Your task to perform on an android device: Search for "macbook air" on ebay.com, select the first entry, and add it to the cart. Image 0: 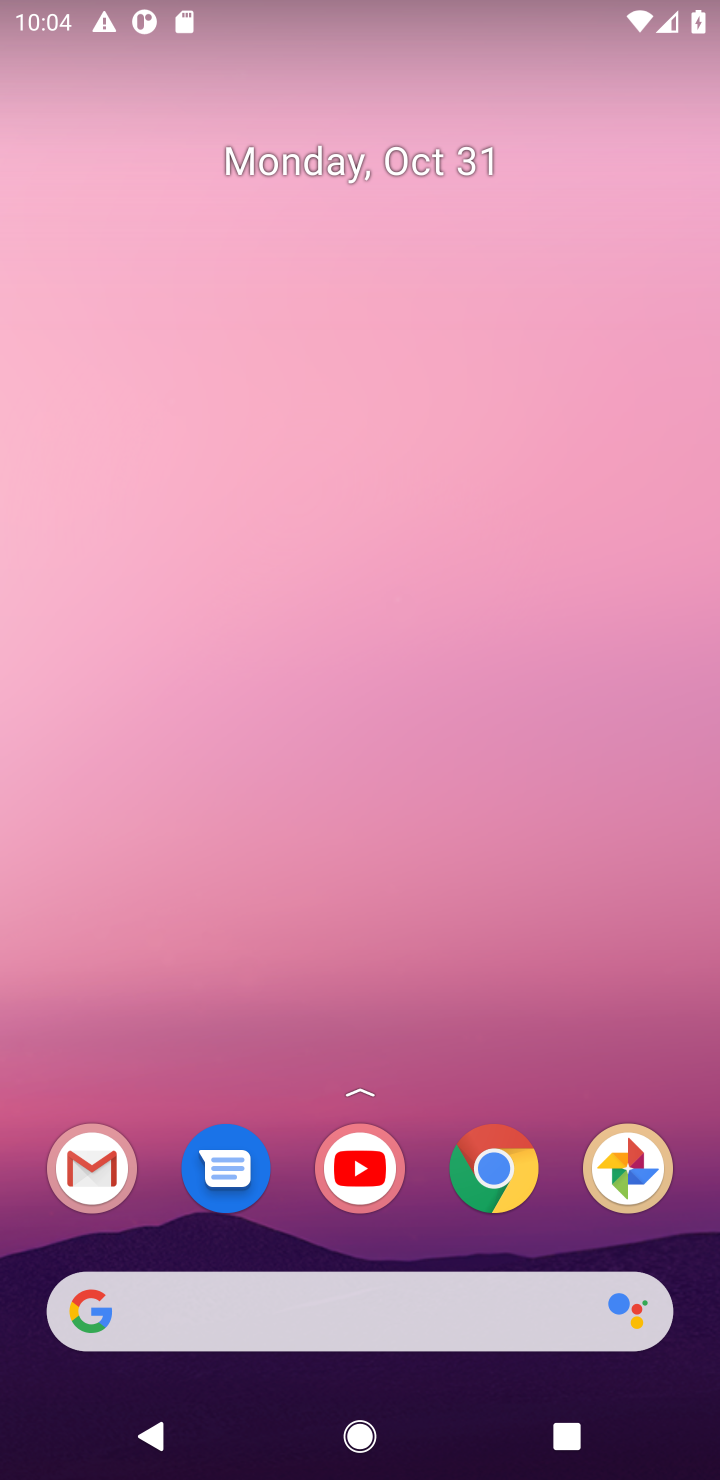
Step 0: click (517, 1165)
Your task to perform on an android device: Search for "macbook air" on ebay.com, select the first entry, and add it to the cart. Image 1: 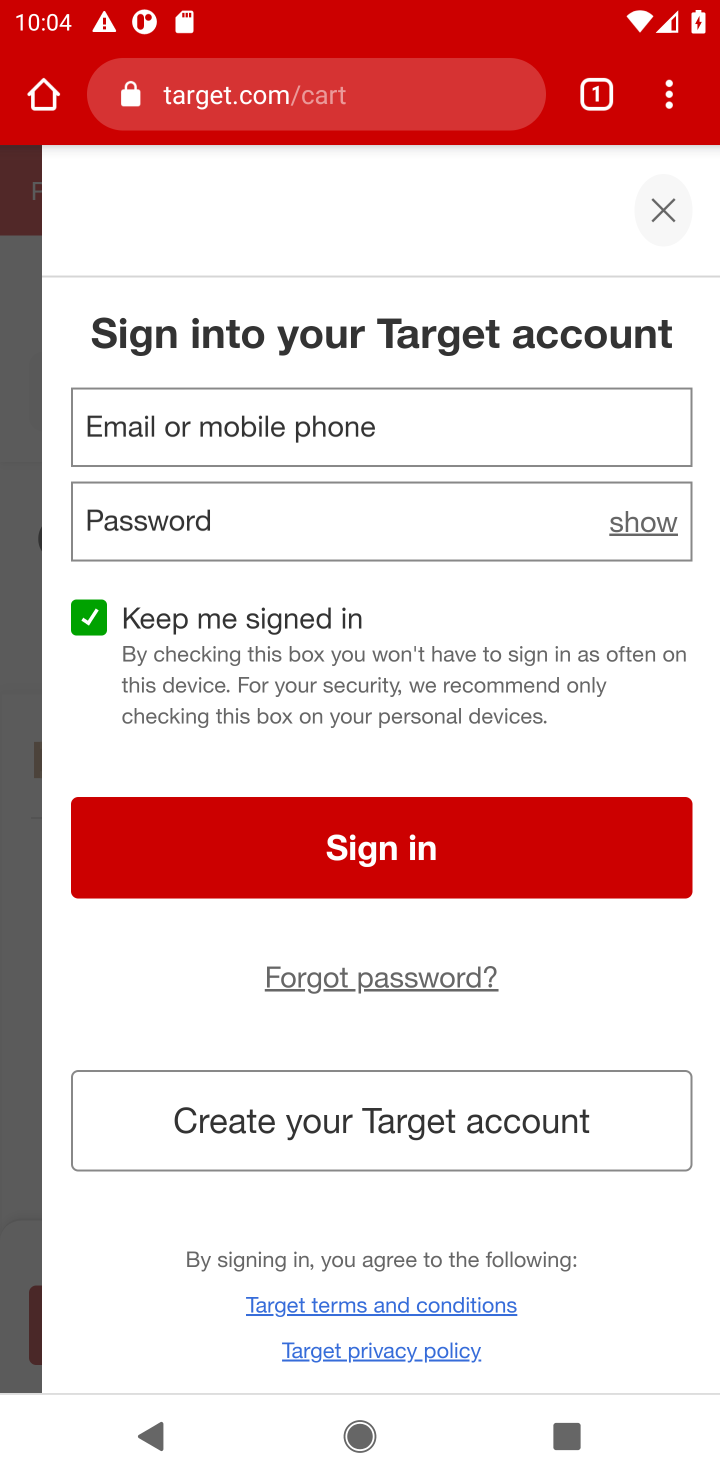
Step 1: click (257, 128)
Your task to perform on an android device: Search for "macbook air" on ebay.com, select the first entry, and add it to the cart. Image 2: 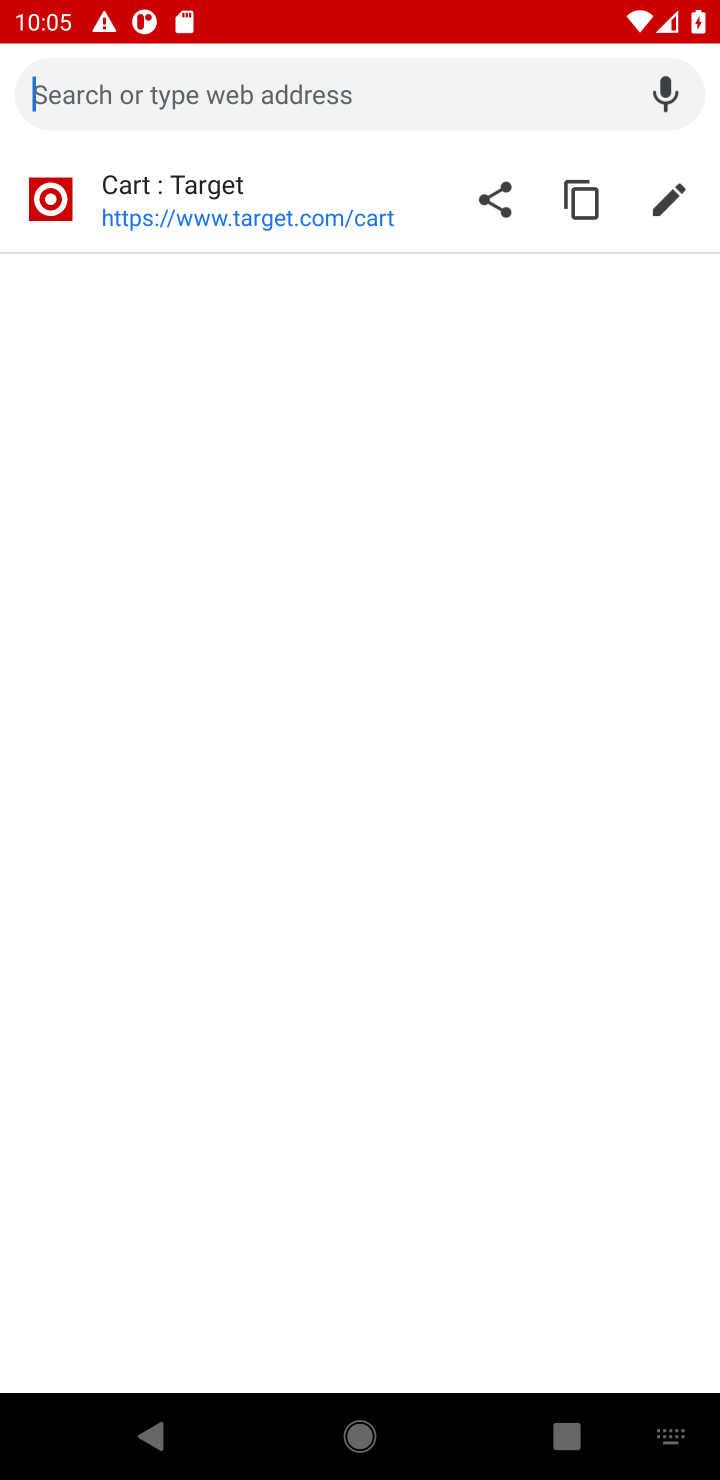
Step 2: type "ebay.com"
Your task to perform on an android device: Search for "macbook air" on ebay.com, select the first entry, and add it to the cart. Image 3: 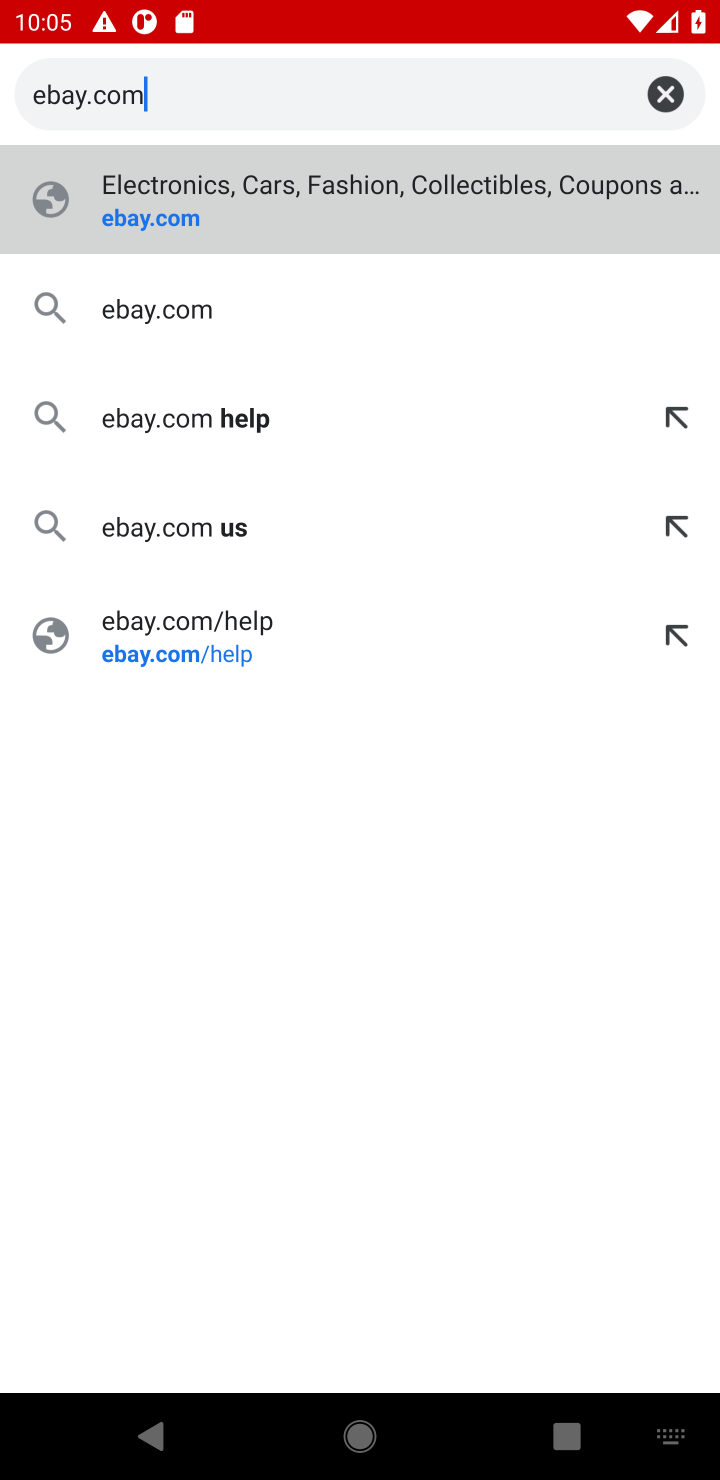
Step 3: press enter
Your task to perform on an android device: Search for "macbook air" on ebay.com, select the first entry, and add it to the cart. Image 4: 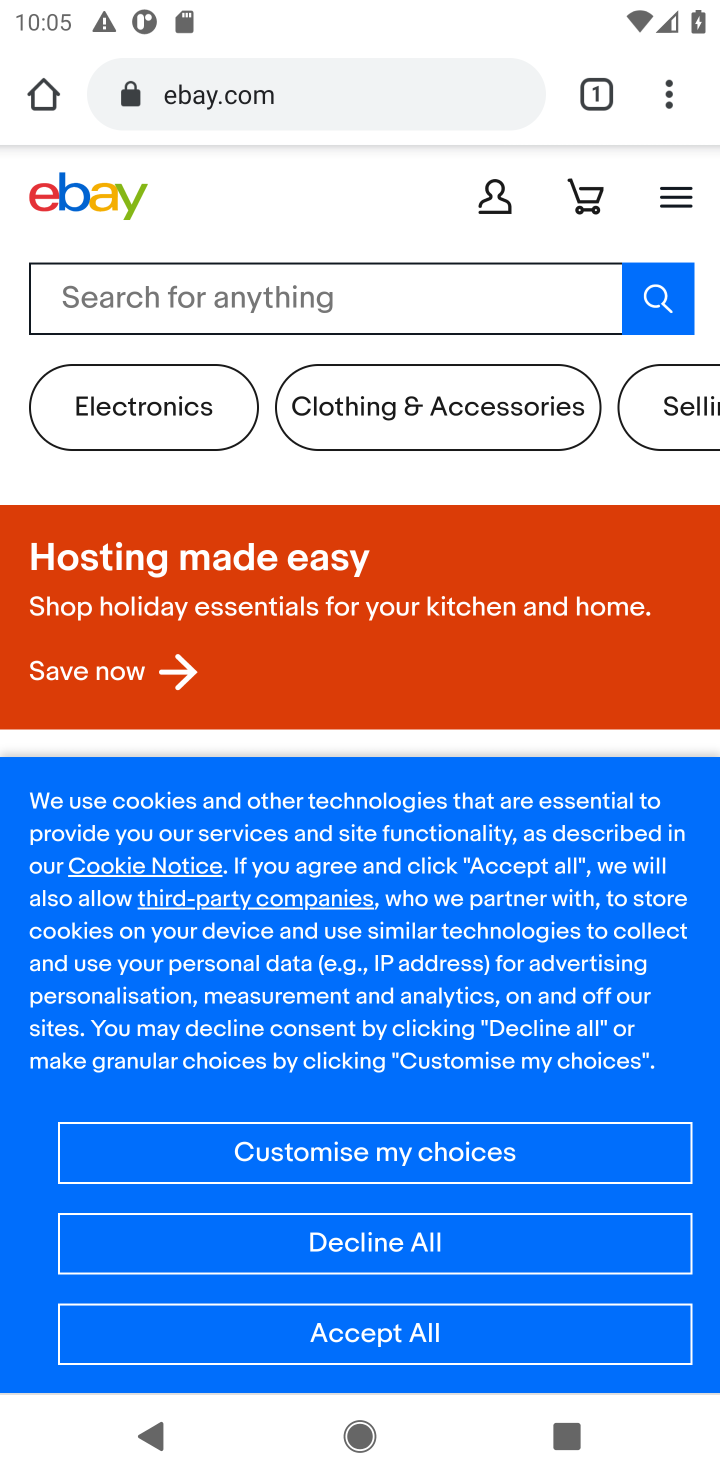
Step 4: click (216, 319)
Your task to perform on an android device: Search for "macbook air" on ebay.com, select the first entry, and add it to the cart. Image 5: 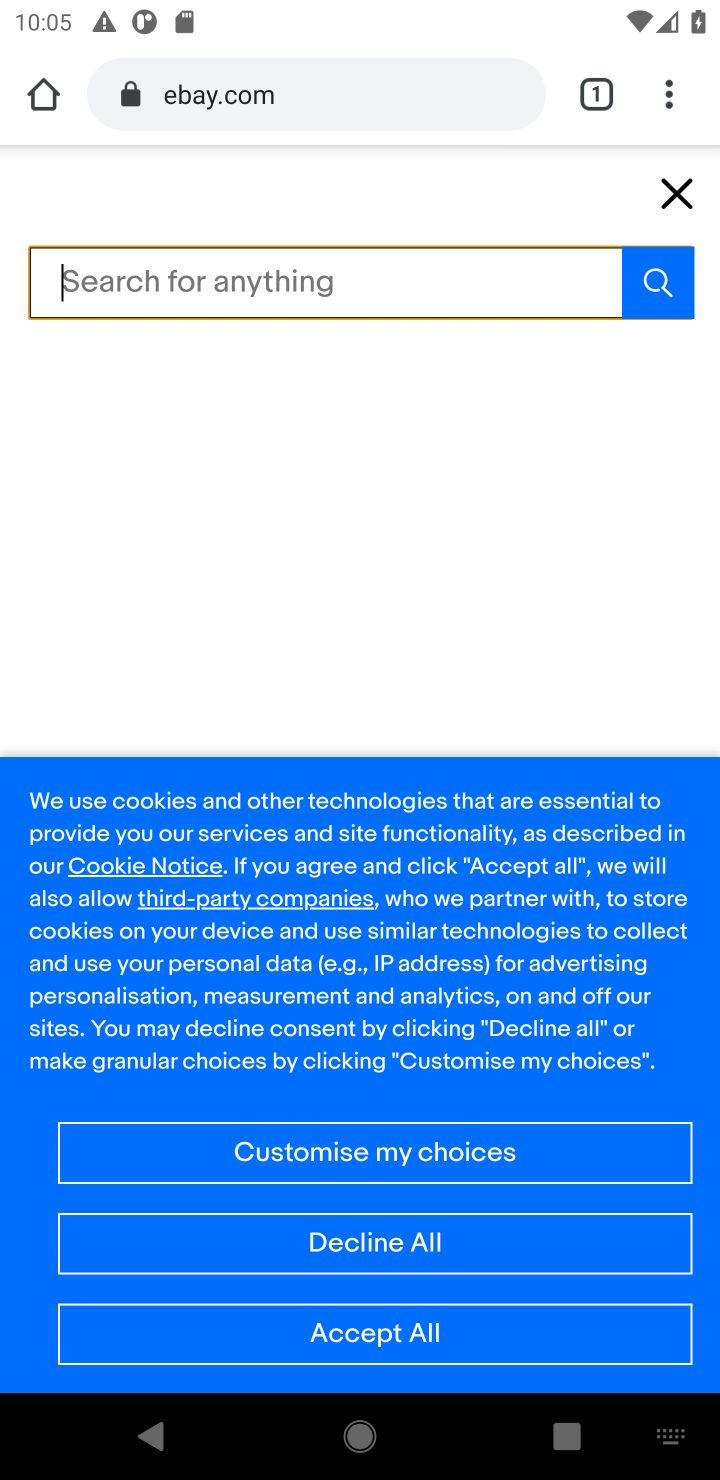
Step 5: type "macbook air"
Your task to perform on an android device: Search for "macbook air" on ebay.com, select the first entry, and add it to the cart. Image 6: 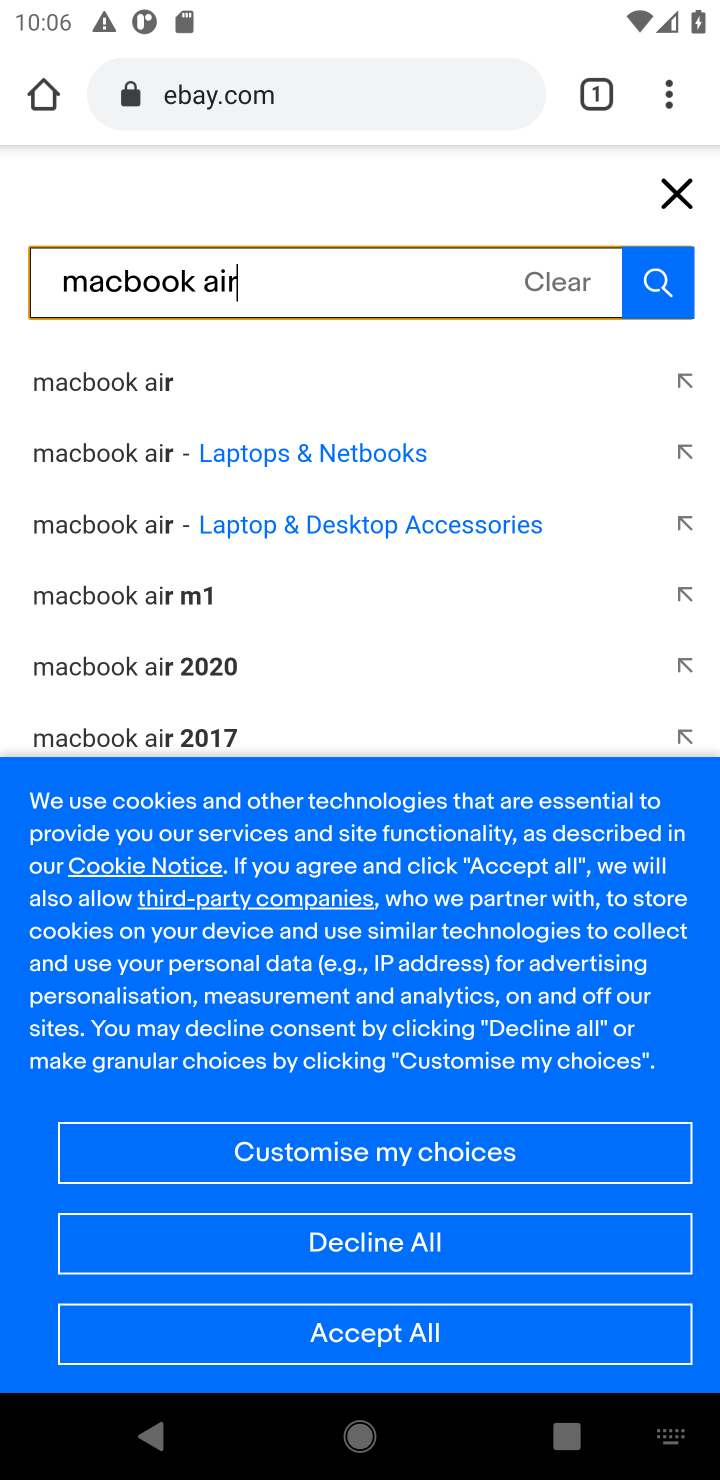
Step 6: click (660, 287)
Your task to perform on an android device: Search for "macbook air" on ebay.com, select the first entry, and add it to the cart. Image 7: 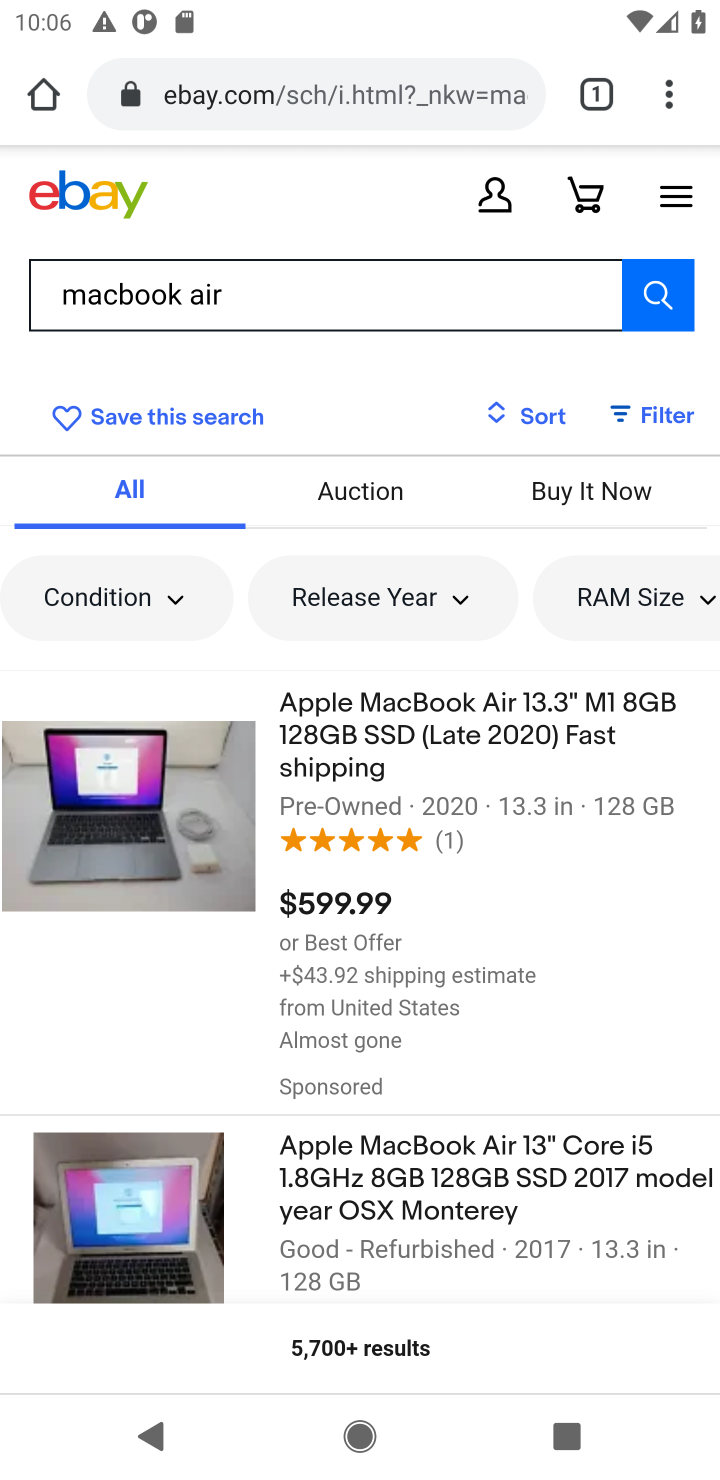
Step 7: click (508, 733)
Your task to perform on an android device: Search for "macbook air" on ebay.com, select the first entry, and add it to the cart. Image 8: 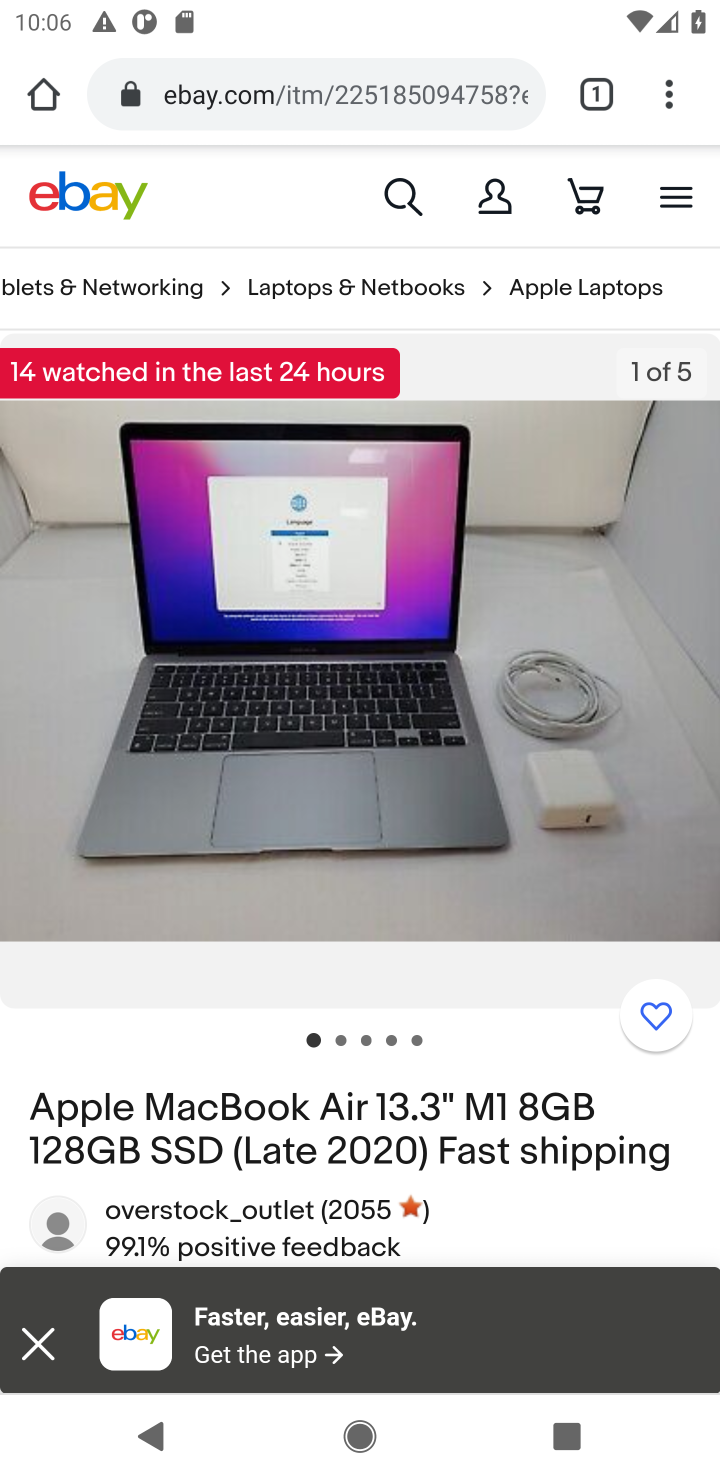
Step 8: drag from (486, 1211) to (462, 833)
Your task to perform on an android device: Search for "macbook air" on ebay.com, select the first entry, and add it to the cart. Image 9: 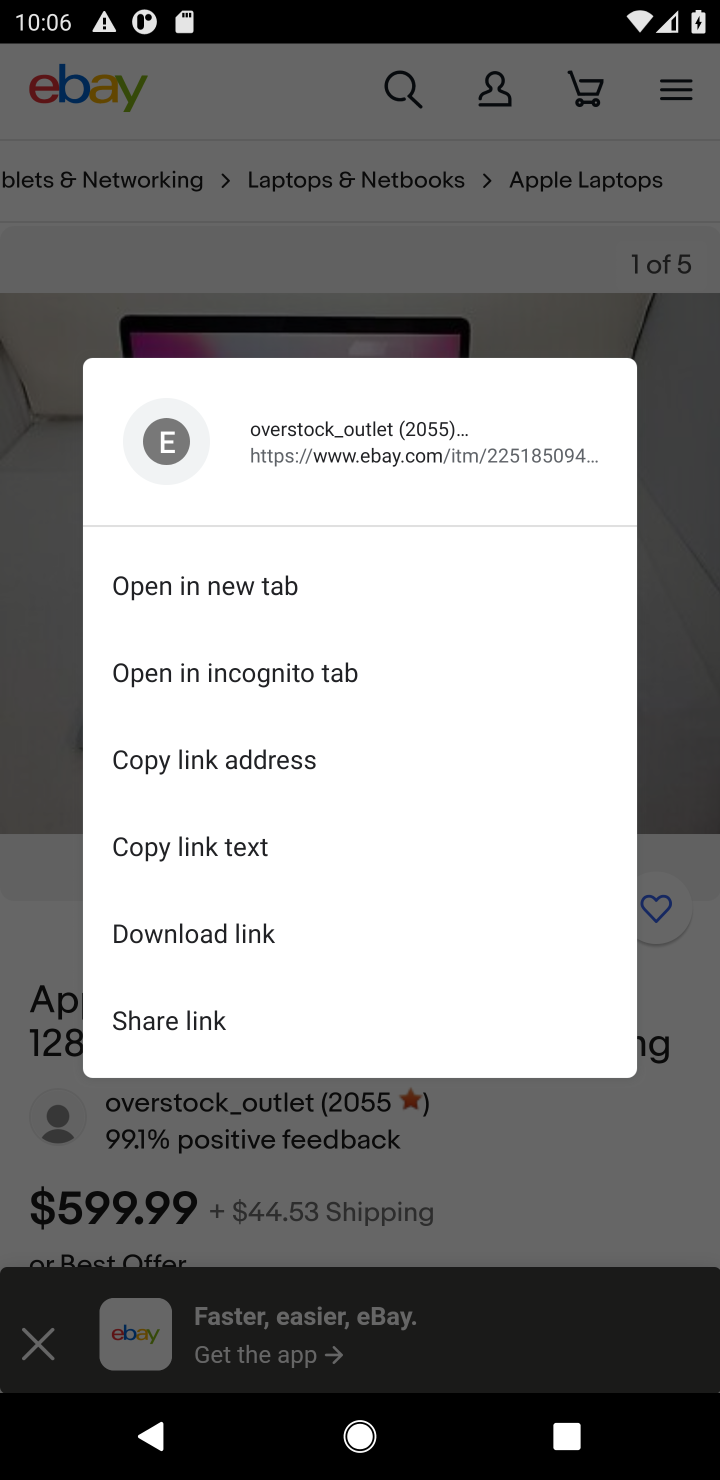
Step 9: click (596, 1140)
Your task to perform on an android device: Search for "macbook air" on ebay.com, select the first entry, and add it to the cart. Image 10: 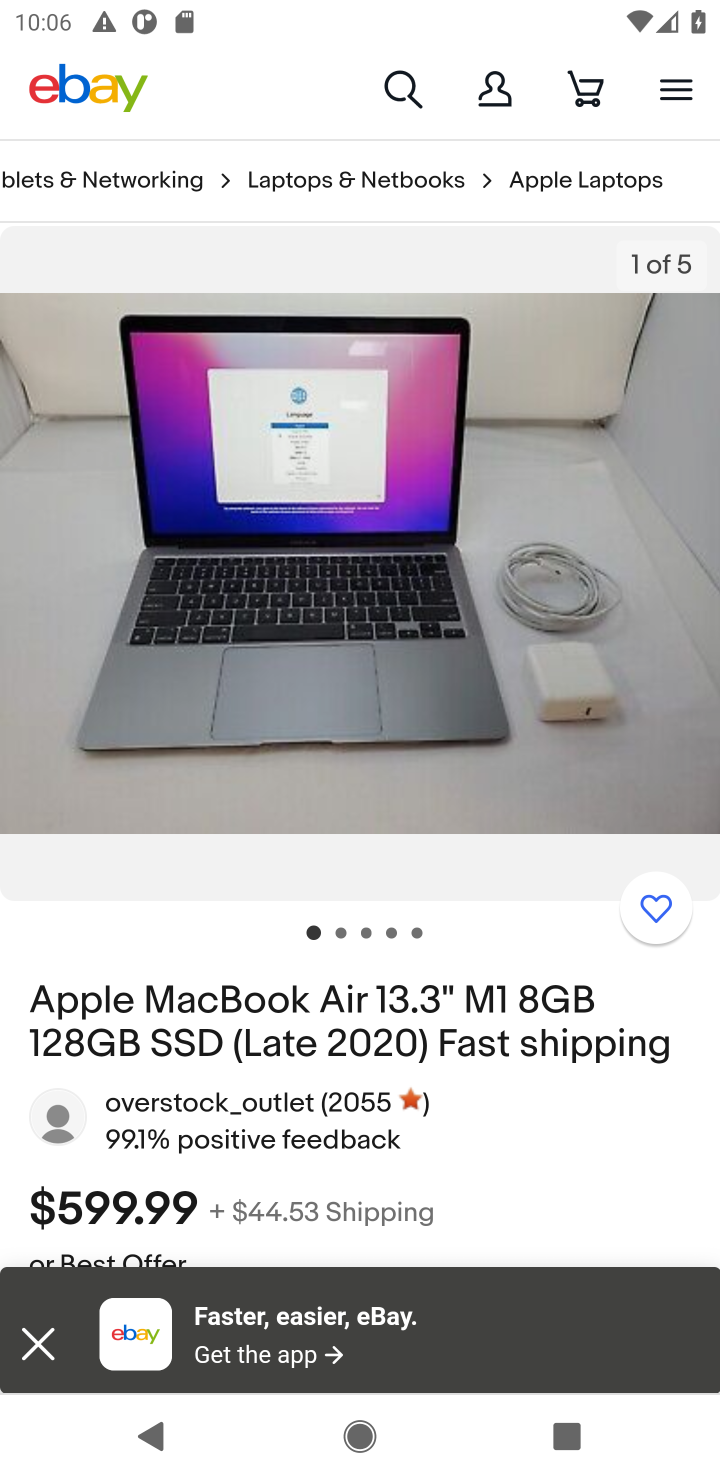
Step 10: drag from (556, 1202) to (555, 818)
Your task to perform on an android device: Search for "macbook air" on ebay.com, select the first entry, and add it to the cart. Image 11: 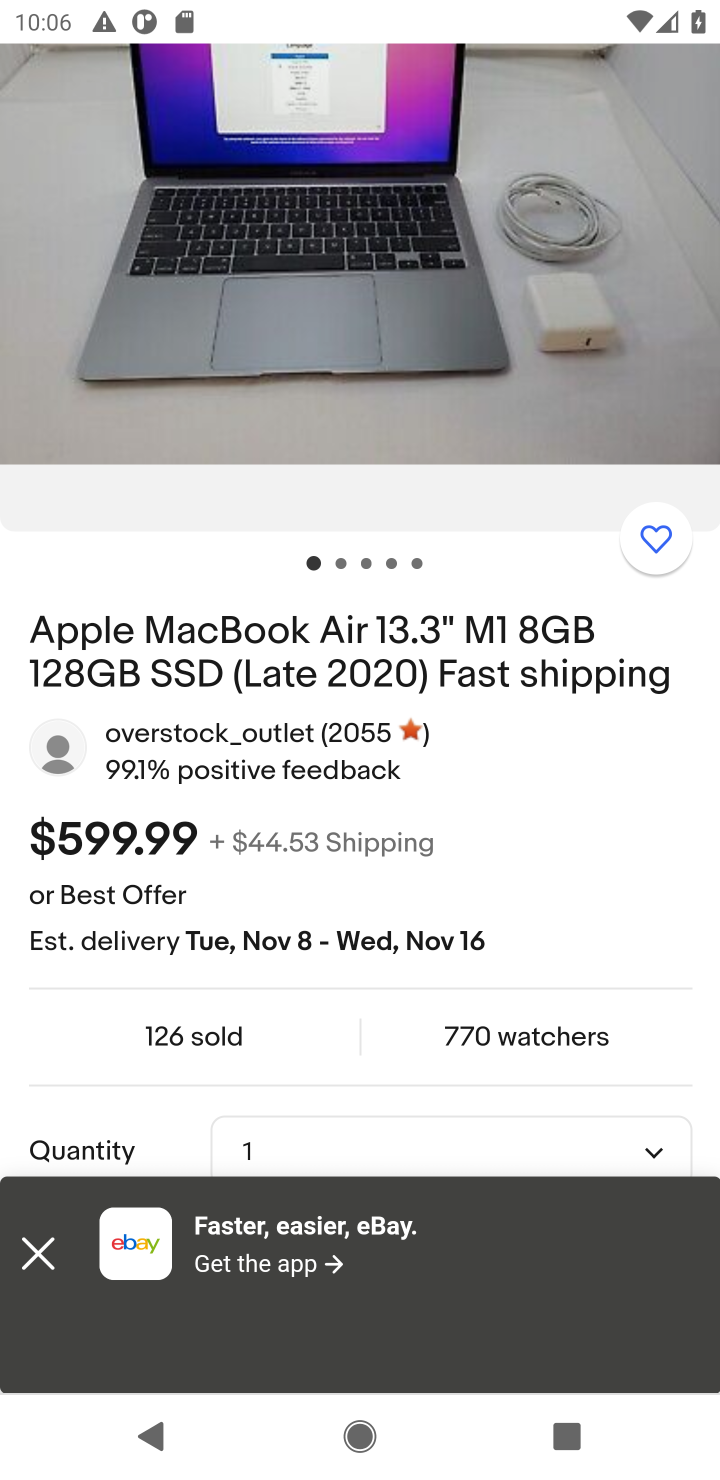
Step 11: drag from (589, 900) to (555, 620)
Your task to perform on an android device: Search for "macbook air" on ebay.com, select the first entry, and add it to the cart. Image 12: 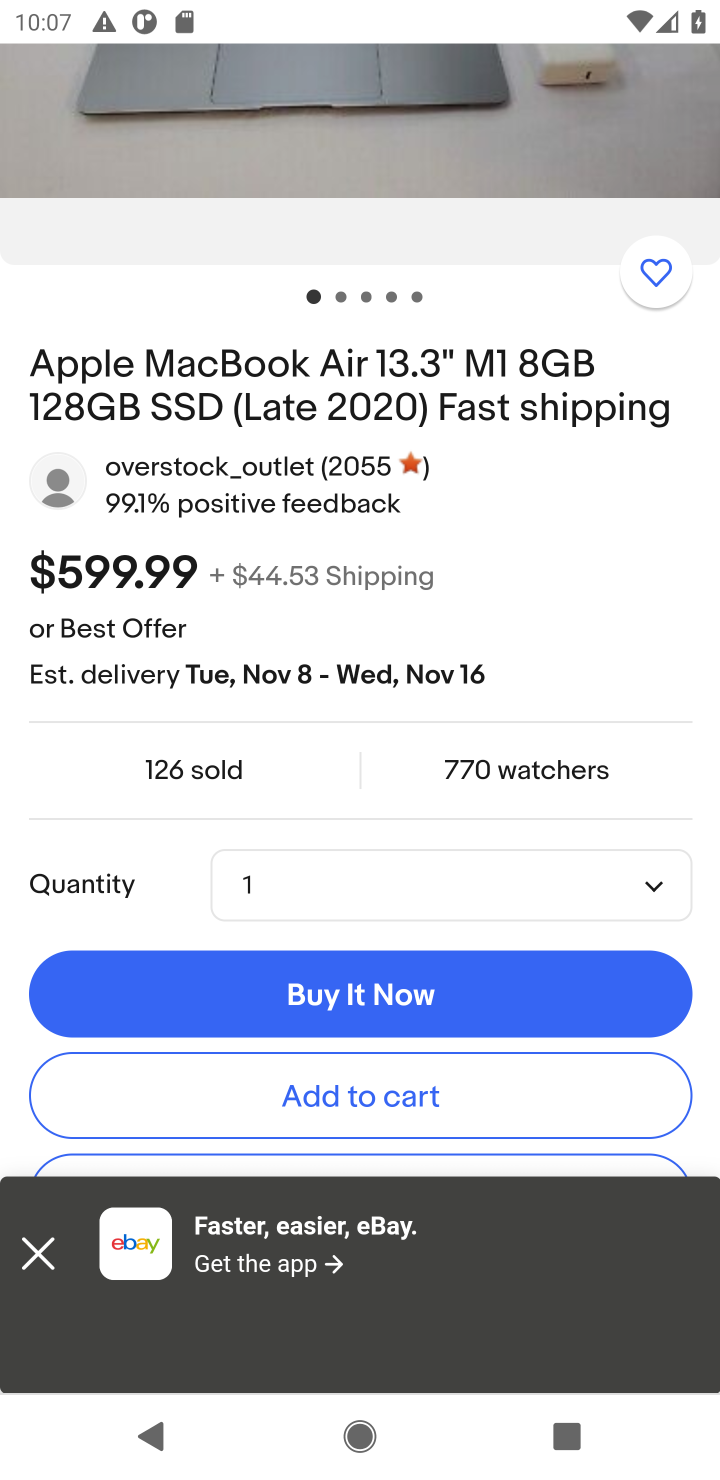
Step 12: click (203, 1106)
Your task to perform on an android device: Search for "macbook air" on ebay.com, select the first entry, and add it to the cart. Image 13: 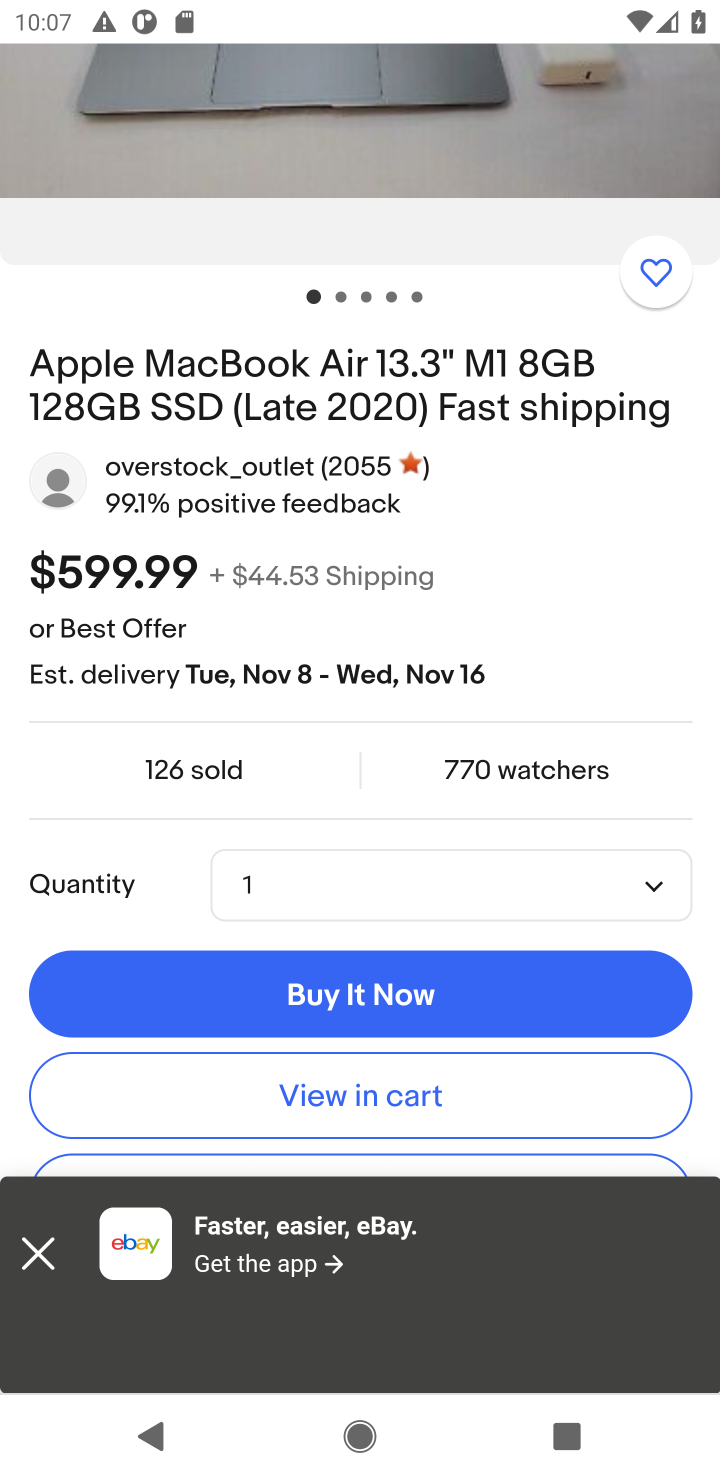
Step 13: task complete